Your task to perform on an android device: Search for pizza restaurants on Maps Image 0: 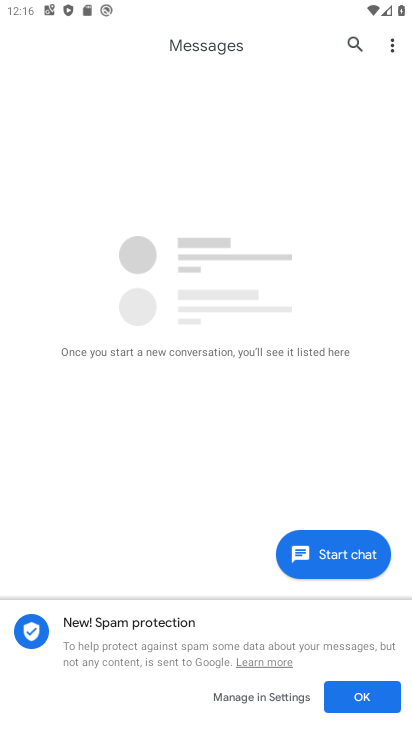
Step 0: press home button
Your task to perform on an android device: Search for pizza restaurants on Maps Image 1: 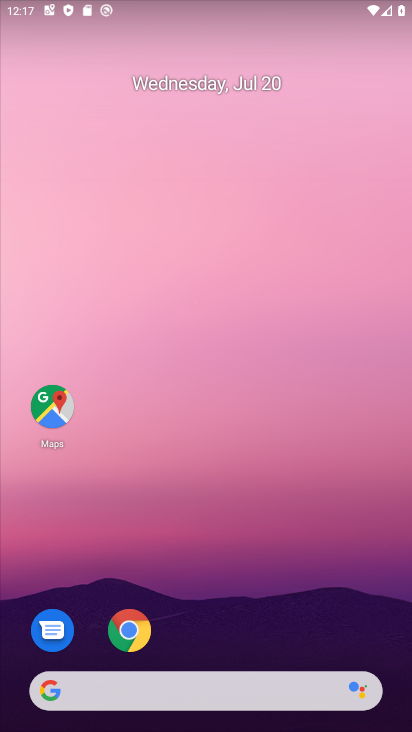
Step 1: click (37, 411)
Your task to perform on an android device: Search for pizza restaurants on Maps Image 2: 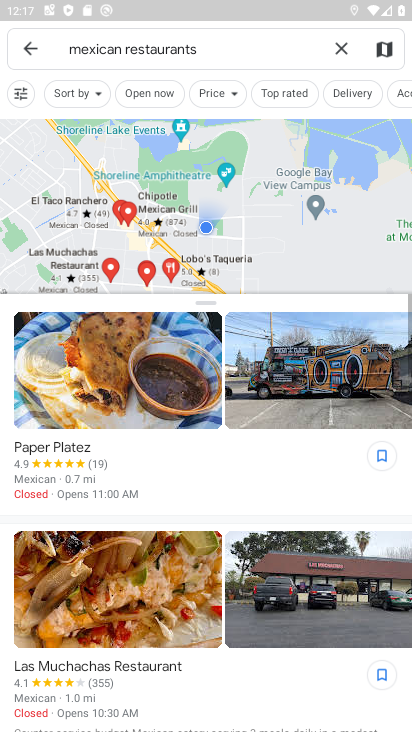
Step 2: click (339, 50)
Your task to perform on an android device: Search for pizza restaurants on Maps Image 3: 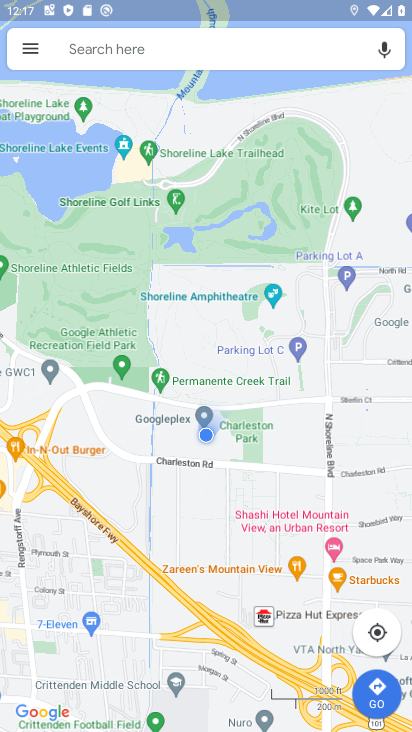
Step 3: click (119, 44)
Your task to perform on an android device: Search for pizza restaurants on Maps Image 4: 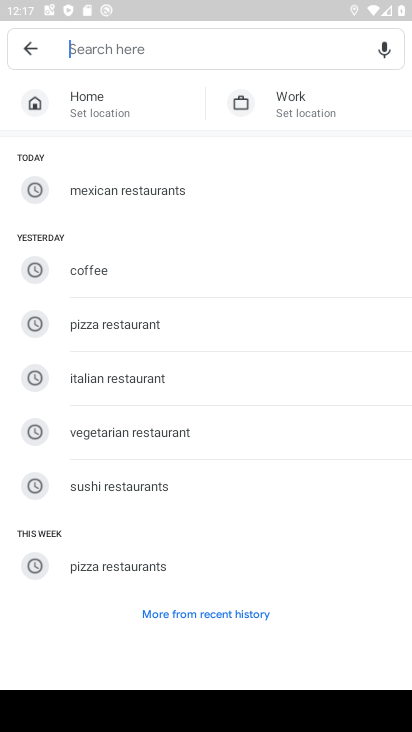
Step 4: click (111, 329)
Your task to perform on an android device: Search for pizza restaurants on Maps Image 5: 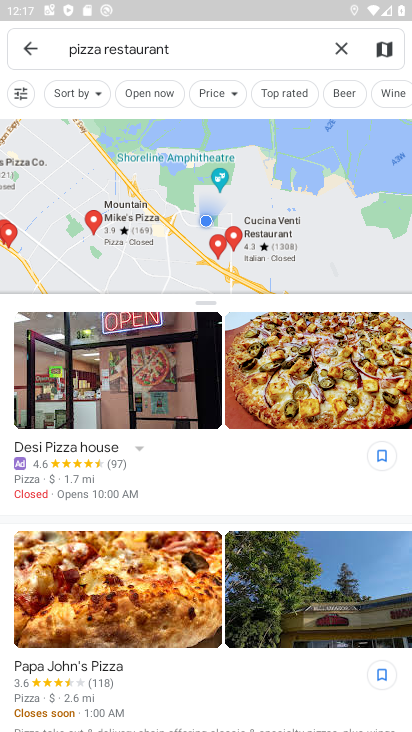
Step 5: task complete